Your task to perform on an android device: Open internet settings Image 0: 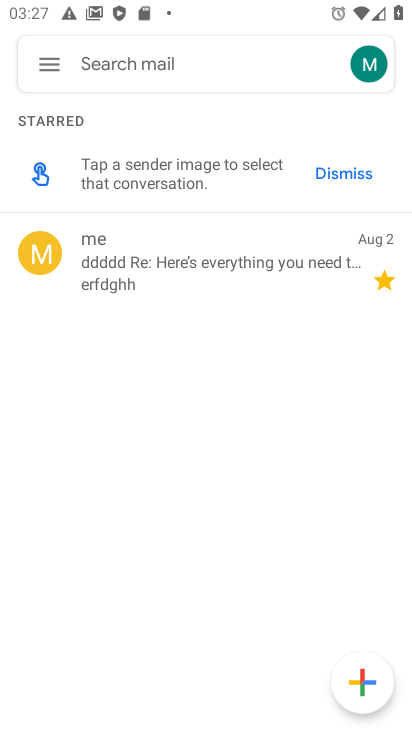
Step 0: press home button
Your task to perform on an android device: Open internet settings Image 1: 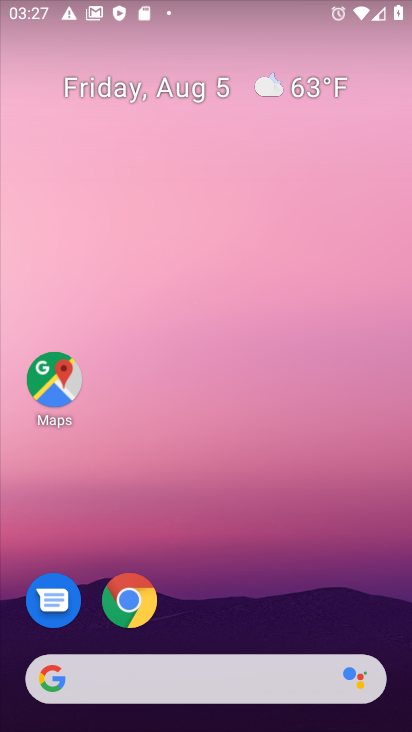
Step 1: drag from (197, 680) to (203, 150)
Your task to perform on an android device: Open internet settings Image 2: 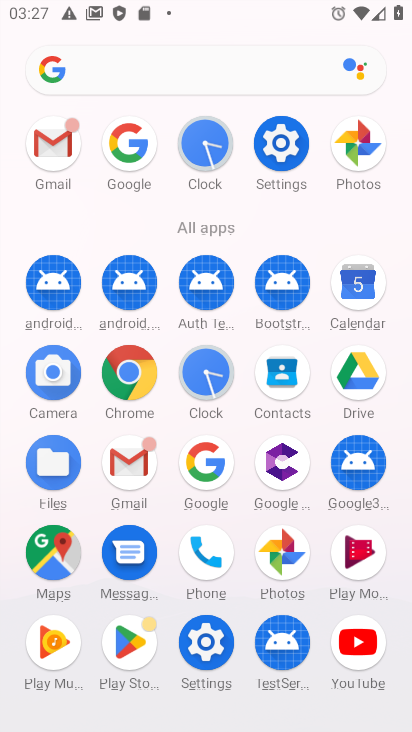
Step 2: click (280, 144)
Your task to perform on an android device: Open internet settings Image 3: 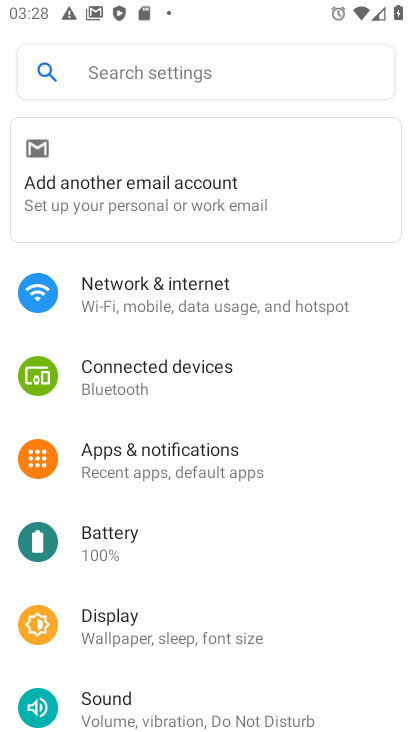
Step 3: click (204, 297)
Your task to perform on an android device: Open internet settings Image 4: 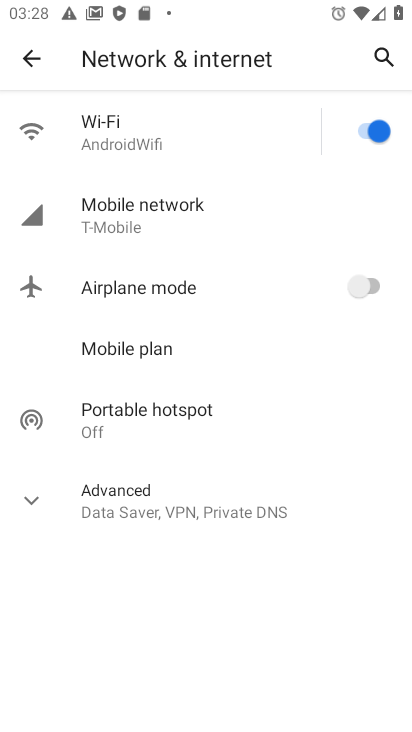
Step 4: task complete